Your task to perform on an android device: Go to location settings Image 0: 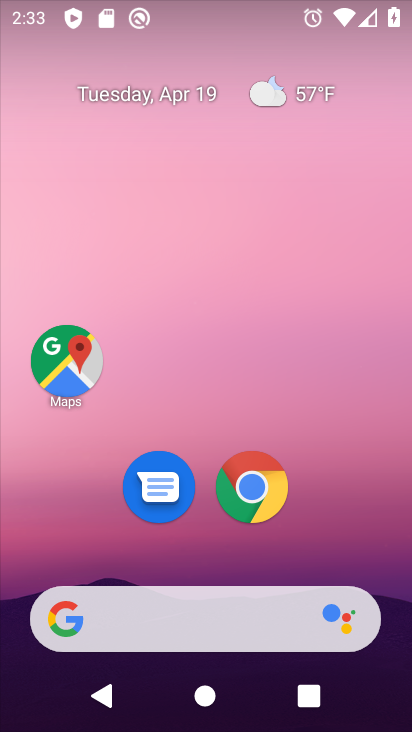
Step 0: drag from (360, 507) to (382, 55)
Your task to perform on an android device: Go to location settings Image 1: 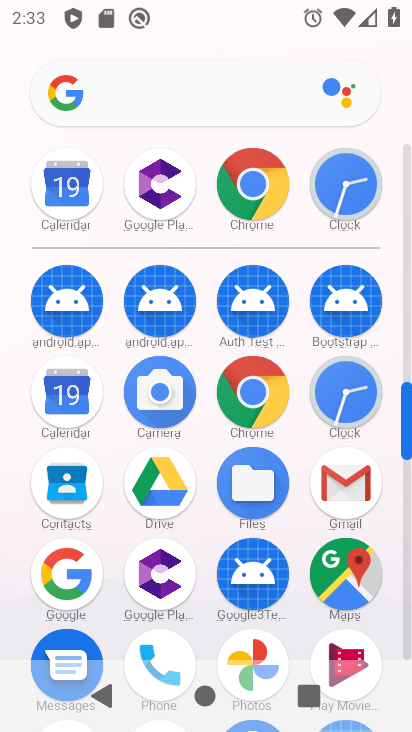
Step 1: drag from (211, 598) to (224, 307)
Your task to perform on an android device: Go to location settings Image 2: 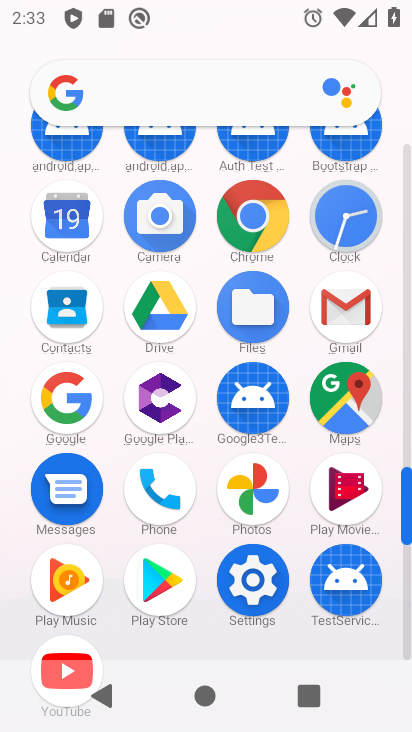
Step 2: click (253, 580)
Your task to perform on an android device: Go to location settings Image 3: 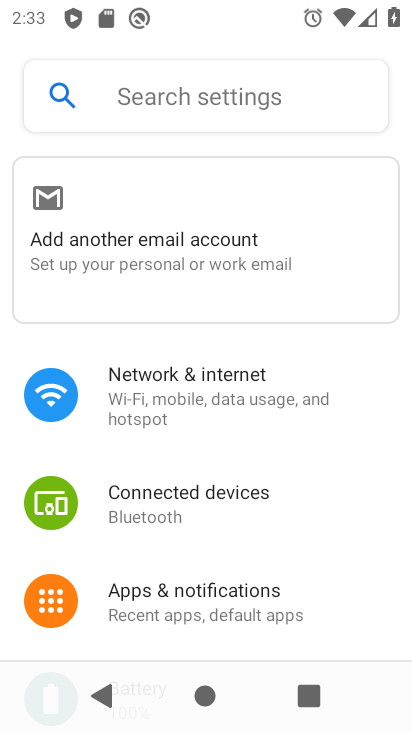
Step 3: drag from (314, 562) to (366, 205)
Your task to perform on an android device: Go to location settings Image 4: 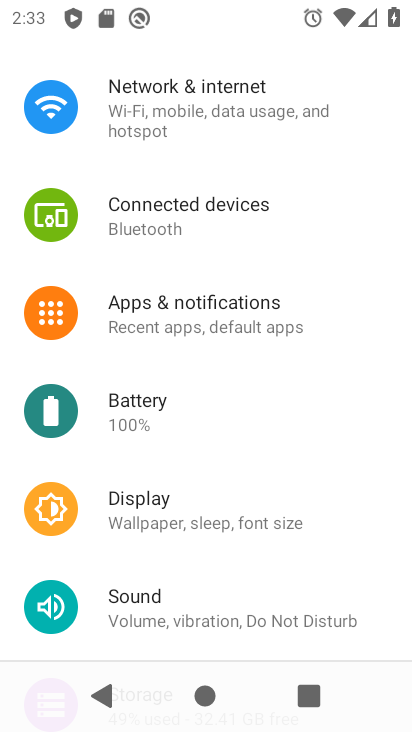
Step 4: drag from (328, 545) to (341, 243)
Your task to perform on an android device: Go to location settings Image 5: 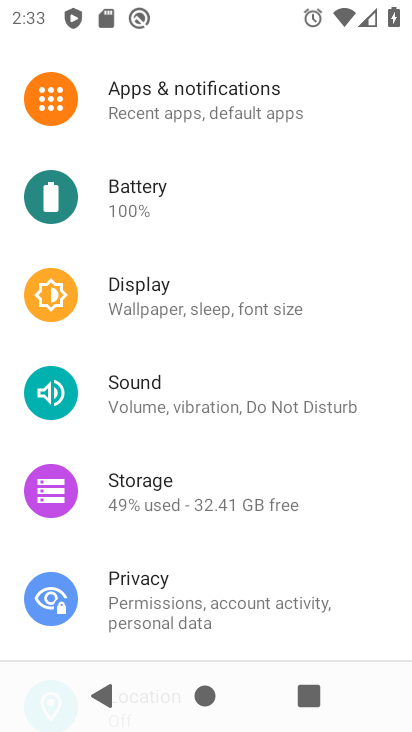
Step 5: drag from (295, 543) to (349, 228)
Your task to perform on an android device: Go to location settings Image 6: 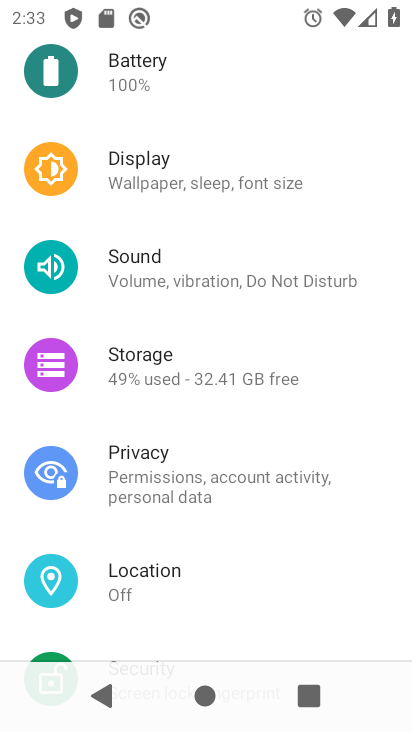
Step 6: click (138, 590)
Your task to perform on an android device: Go to location settings Image 7: 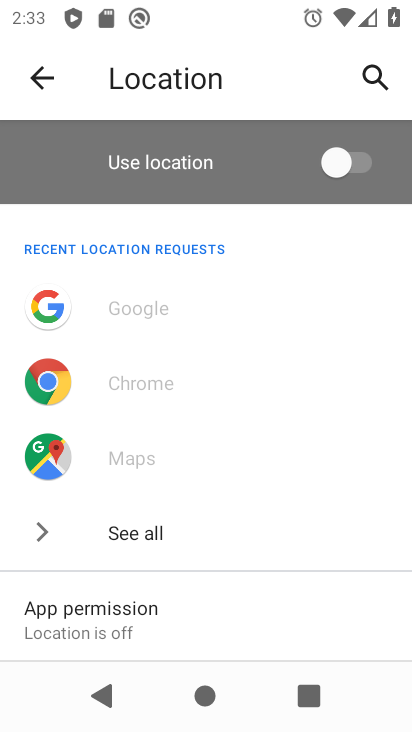
Step 7: task complete